Your task to perform on an android device: Open my contact list Image 0: 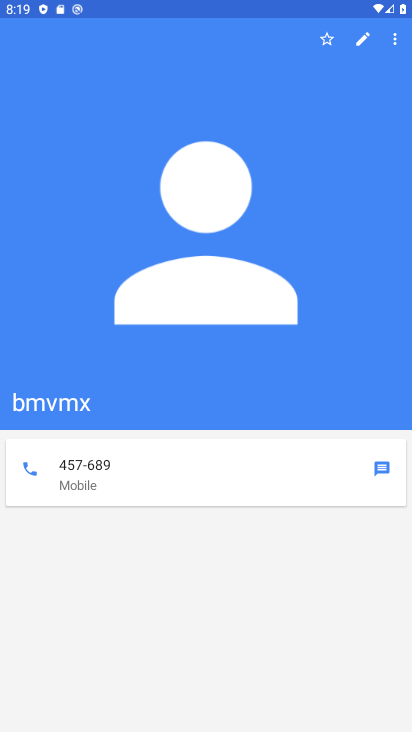
Step 0: drag from (188, 685) to (229, 387)
Your task to perform on an android device: Open my contact list Image 1: 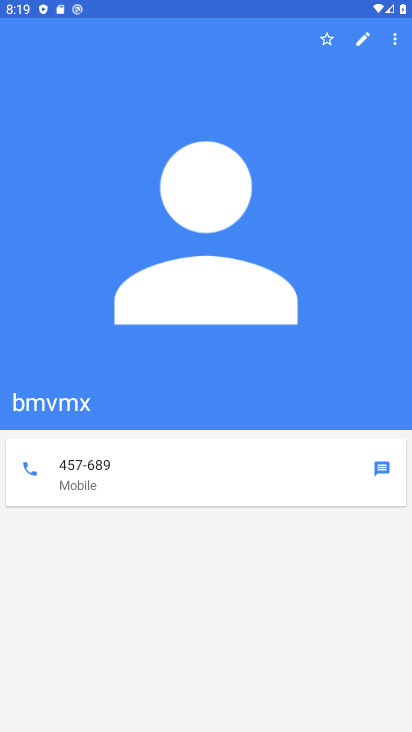
Step 1: press home button
Your task to perform on an android device: Open my contact list Image 2: 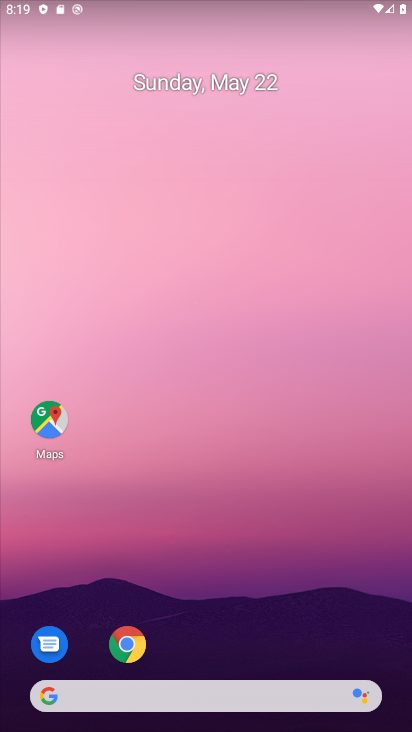
Step 2: drag from (233, 685) to (244, 9)
Your task to perform on an android device: Open my contact list Image 3: 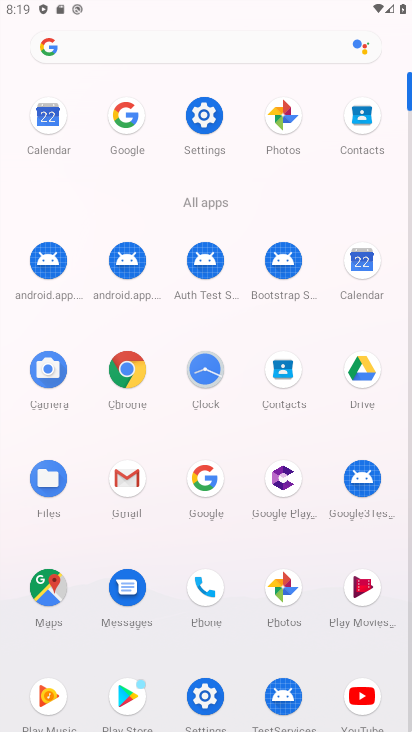
Step 3: click (277, 367)
Your task to perform on an android device: Open my contact list Image 4: 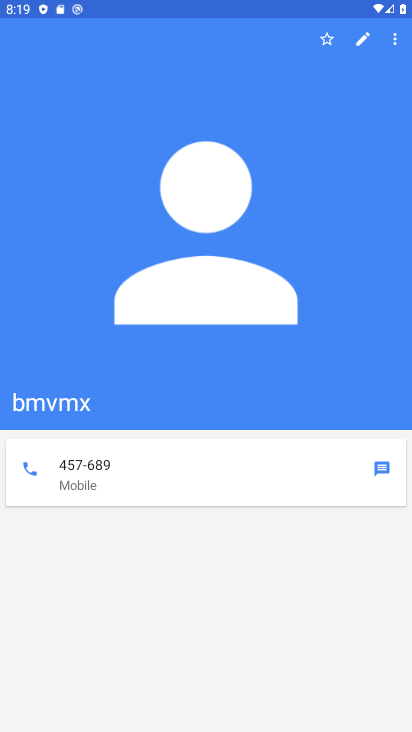
Step 4: task complete